Your task to perform on an android device: Find coffee shops on Maps Image 0: 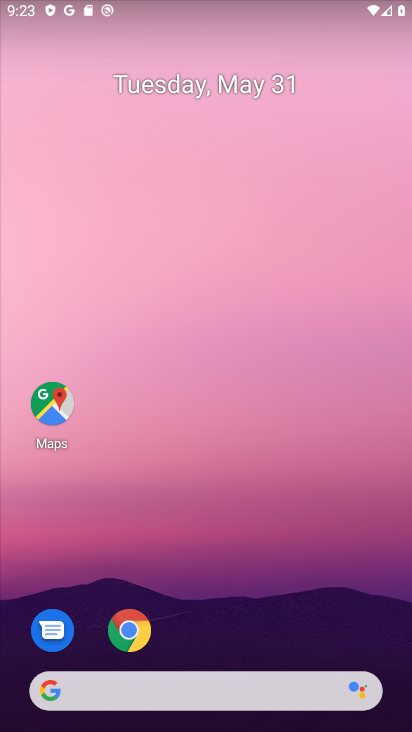
Step 0: click (43, 399)
Your task to perform on an android device: Find coffee shops on Maps Image 1: 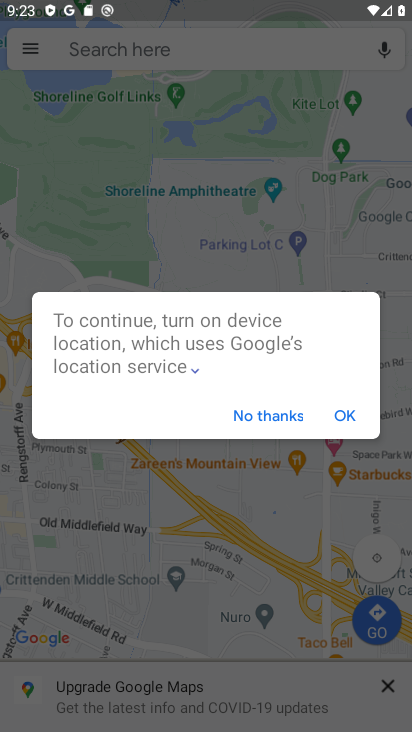
Step 1: click (335, 423)
Your task to perform on an android device: Find coffee shops on Maps Image 2: 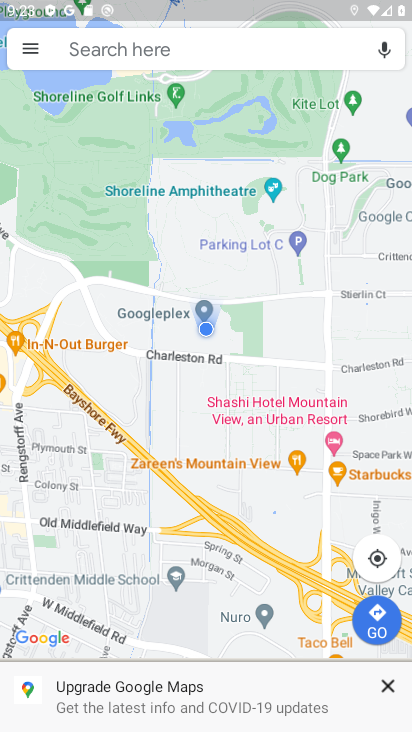
Step 2: click (139, 62)
Your task to perform on an android device: Find coffee shops on Maps Image 3: 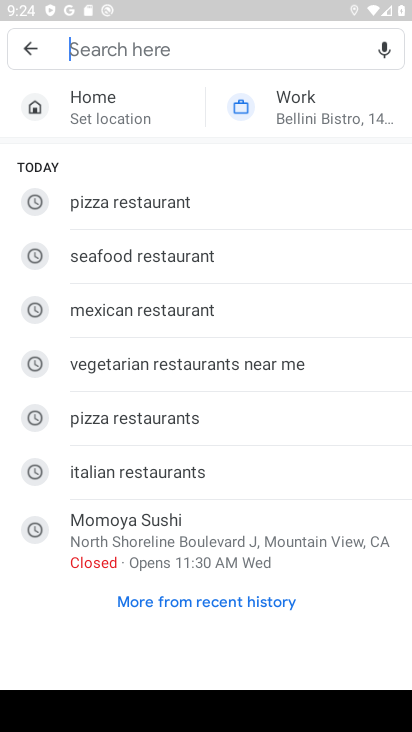
Step 3: type "coffee shops"
Your task to perform on an android device: Find coffee shops on Maps Image 4: 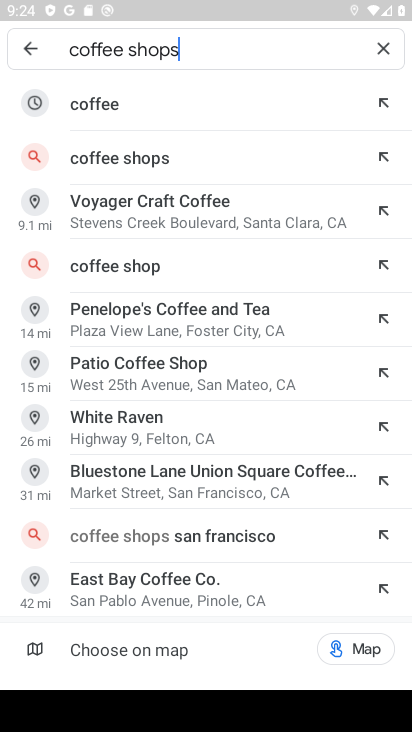
Step 4: click (136, 154)
Your task to perform on an android device: Find coffee shops on Maps Image 5: 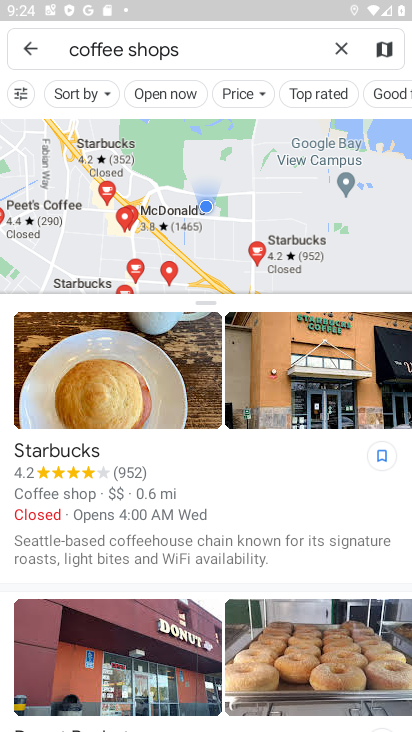
Step 5: task complete